Your task to perform on an android device: Open Chrome and go to the settings page Image 0: 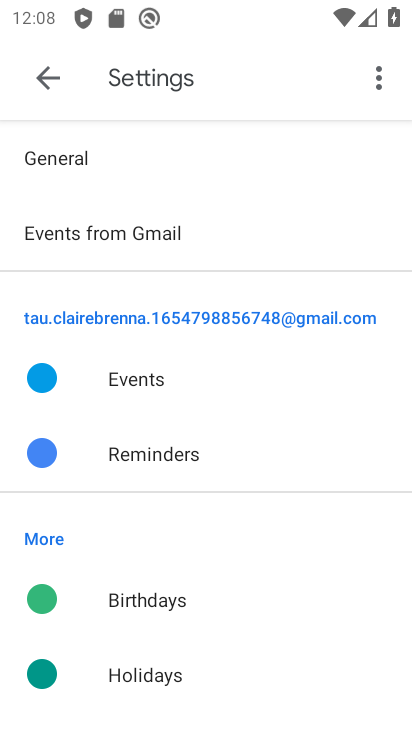
Step 0: press back button
Your task to perform on an android device: Open Chrome and go to the settings page Image 1: 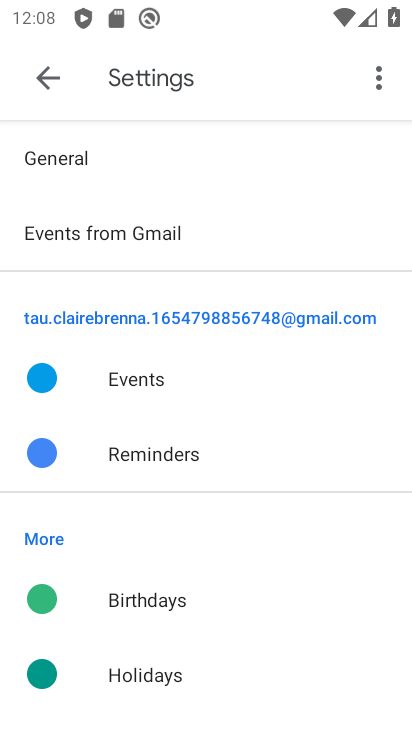
Step 1: press back button
Your task to perform on an android device: Open Chrome and go to the settings page Image 2: 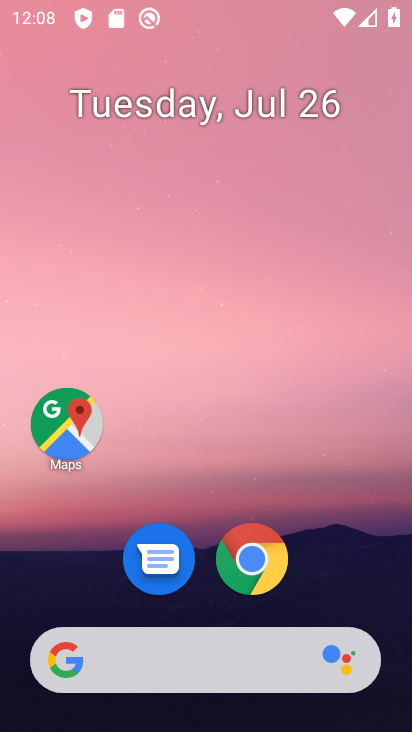
Step 2: press back button
Your task to perform on an android device: Open Chrome and go to the settings page Image 3: 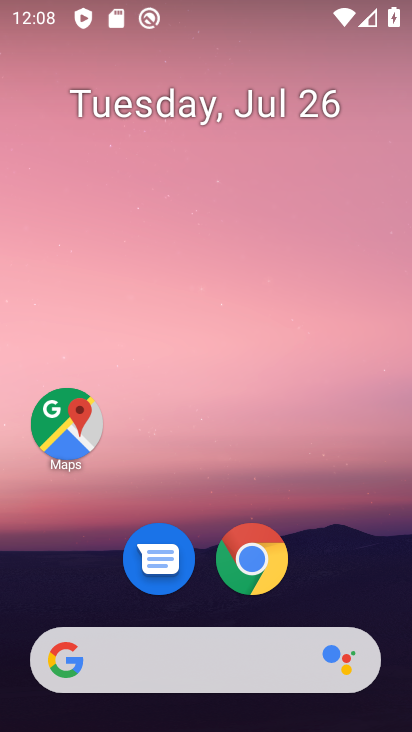
Step 3: click (259, 557)
Your task to perform on an android device: Open Chrome and go to the settings page Image 4: 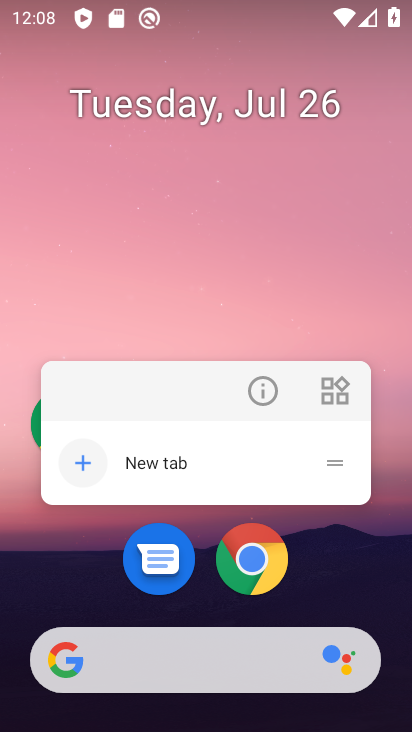
Step 4: click (253, 570)
Your task to perform on an android device: Open Chrome and go to the settings page Image 5: 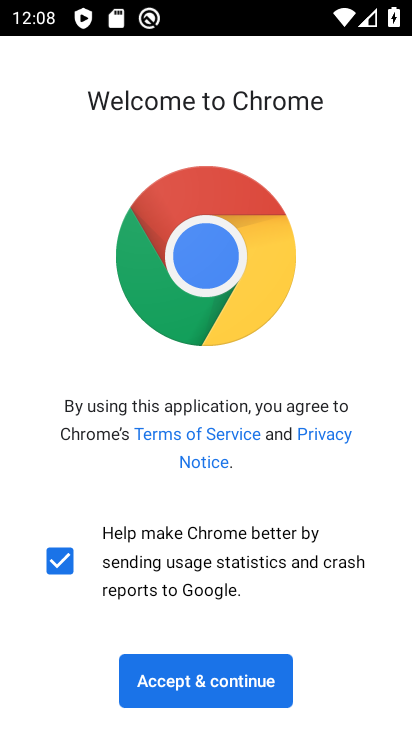
Step 5: click (175, 687)
Your task to perform on an android device: Open Chrome and go to the settings page Image 6: 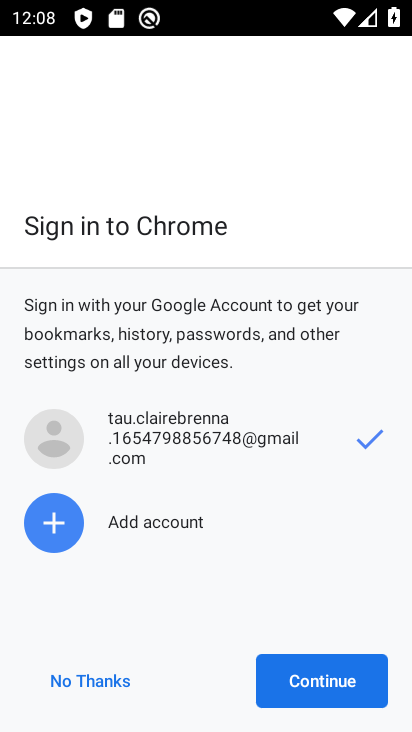
Step 6: click (317, 679)
Your task to perform on an android device: Open Chrome and go to the settings page Image 7: 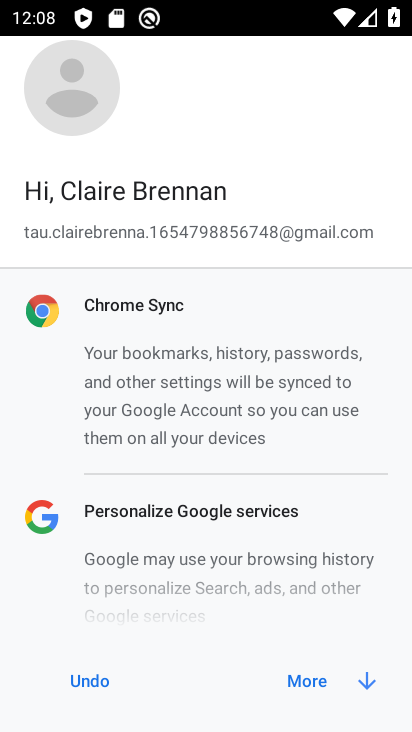
Step 7: click (329, 679)
Your task to perform on an android device: Open Chrome and go to the settings page Image 8: 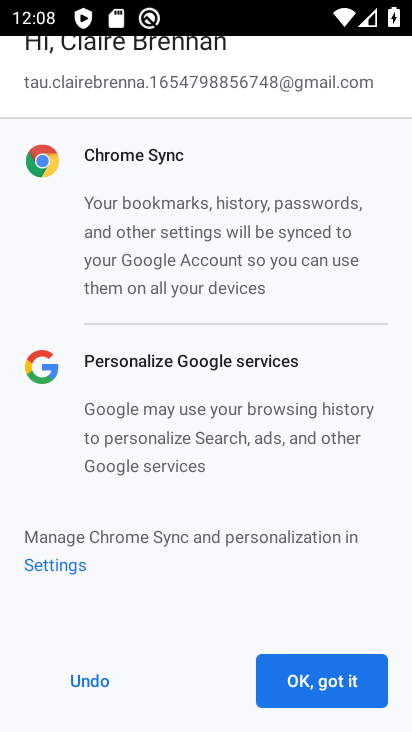
Step 8: click (329, 679)
Your task to perform on an android device: Open Chrome and go to the settings page Image 9: 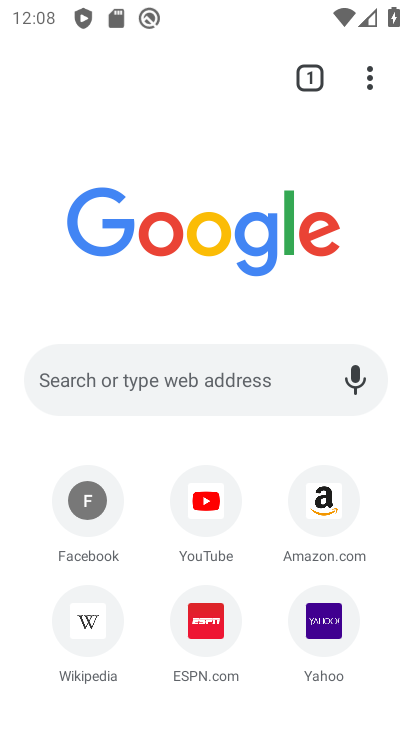
Step 9: task complete